Your task to perform on an android device: check android version Image 0: 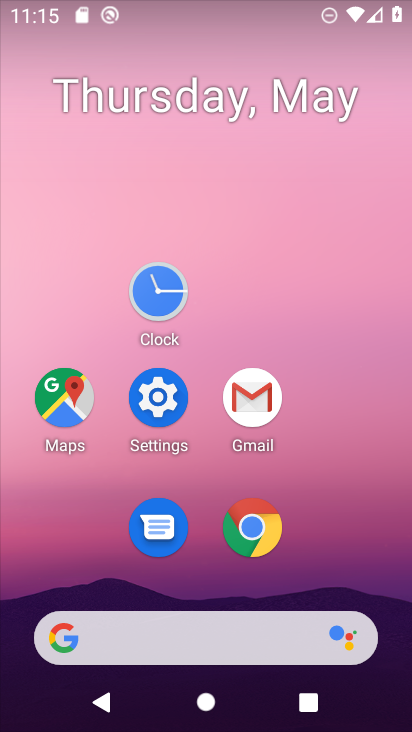
Step 0: click (161, 408)
Your task to perform on an android device: check android version Image 1: 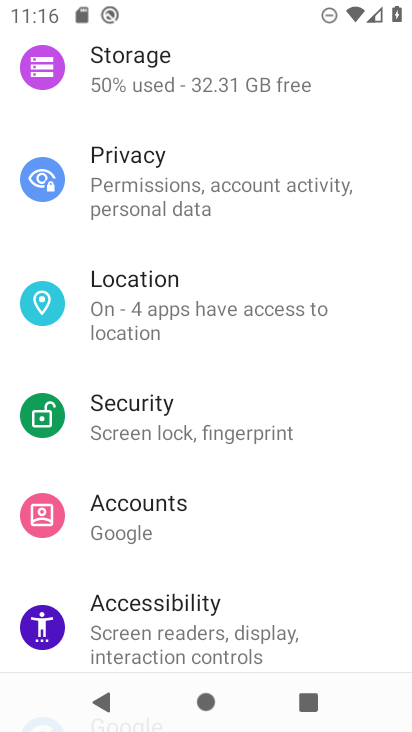
Step 1: drag from (167, 419) to (125, 186)
Your task to perform on an android device: check android version Image 2: 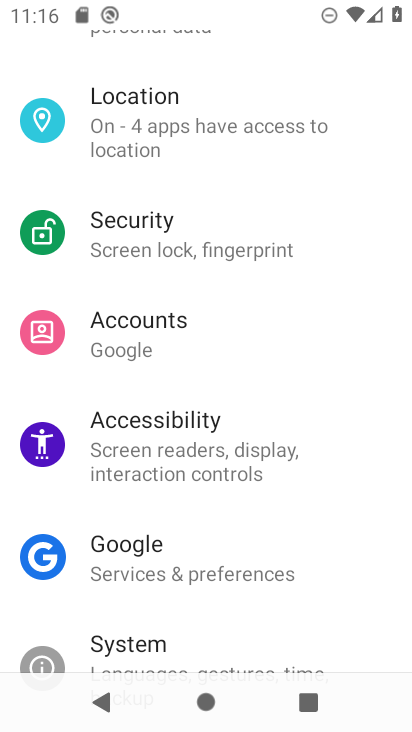
Step 2: drag from (196, 634) to (193, 445)
Your task to perform on an android device: check android version Image 3: 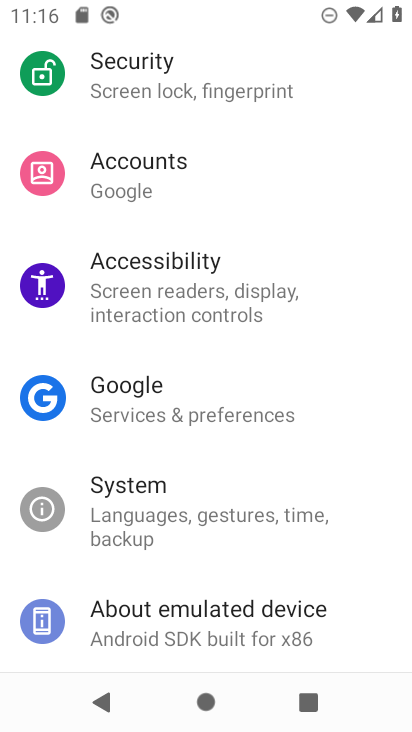
Step 3: click (188, 617)
Your task to perform on an android device: check android version Image 4: 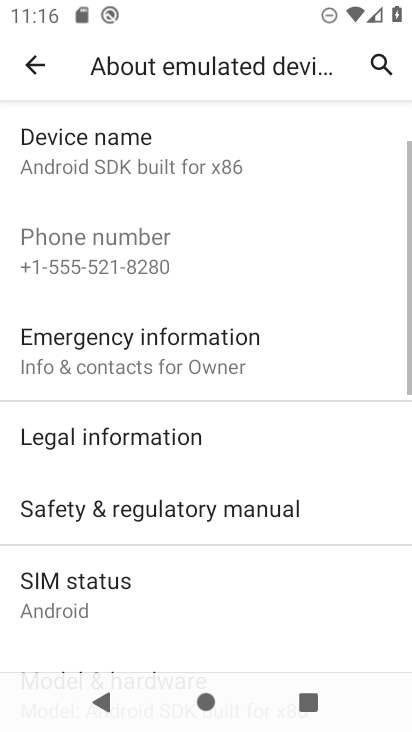
Step 4: drag from (151, 521) to (158, 318)
Your task to perform on an android device: check android version Image 5: 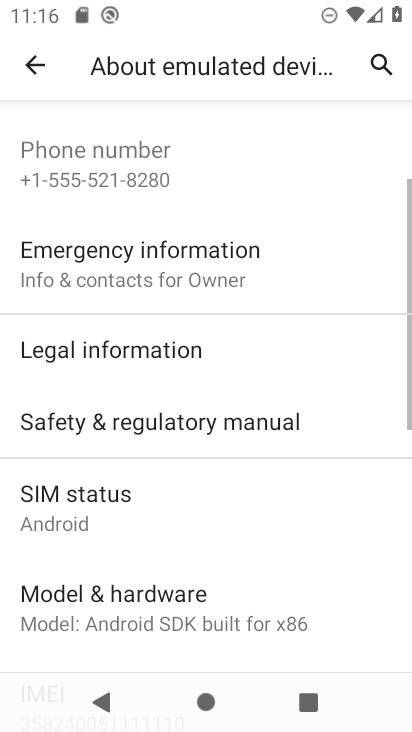
Step 5: drag from (183, 529) to (143, 407)
Your task to perform on an android device: check android version Image 6: 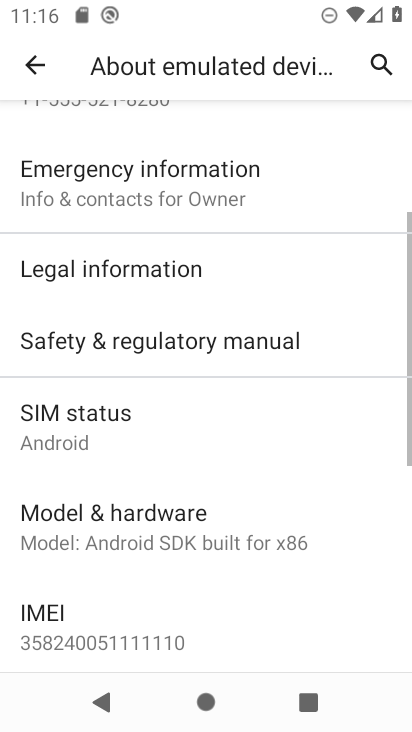
Step 6: drag from (162, 493) to (147, 434)
Your task to perform on an android device: check android version Image 7: 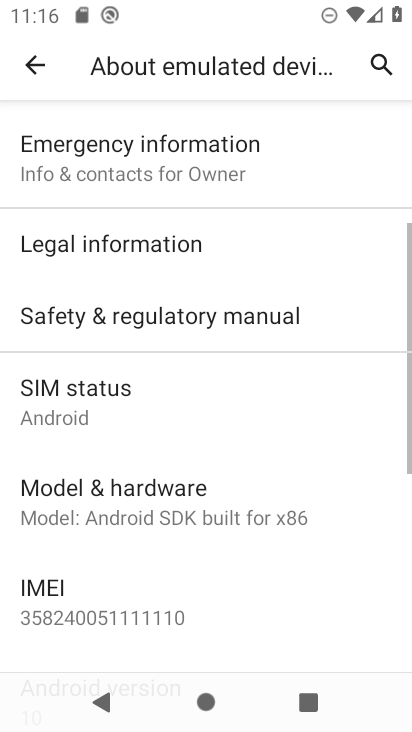
Step 7: drag from (152, 556) to (221, 330)
Your task to perform on an android device: check android version Image 8: 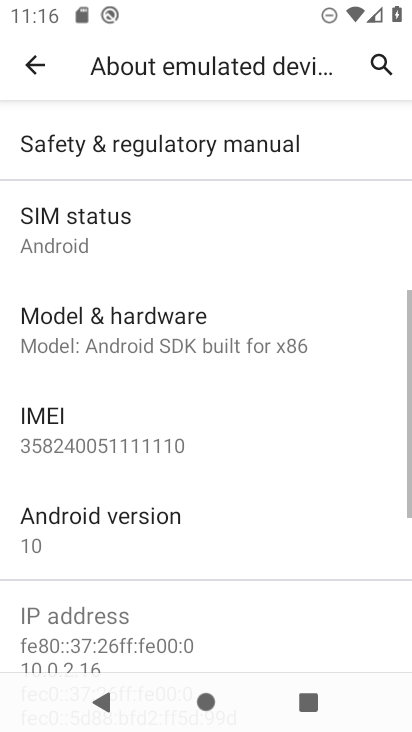
Step 8: click (180, 529)
Your task to perform on an android device: check android version Image 9: 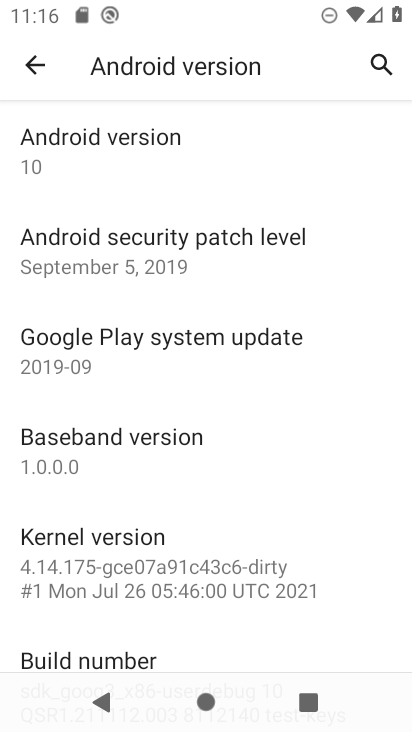
Step 9: task complete